Your task to perform on an android device: open sync settings in chrome Image 0: 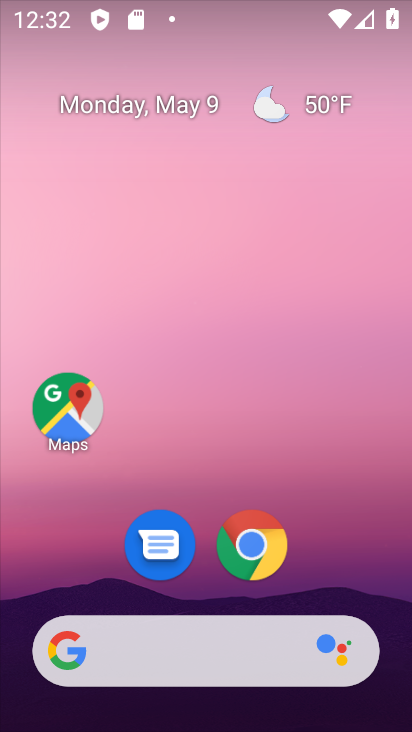
Step 0: click (240, 566)
Your task to perform on an android device: open sync settings in chrome Image 1: 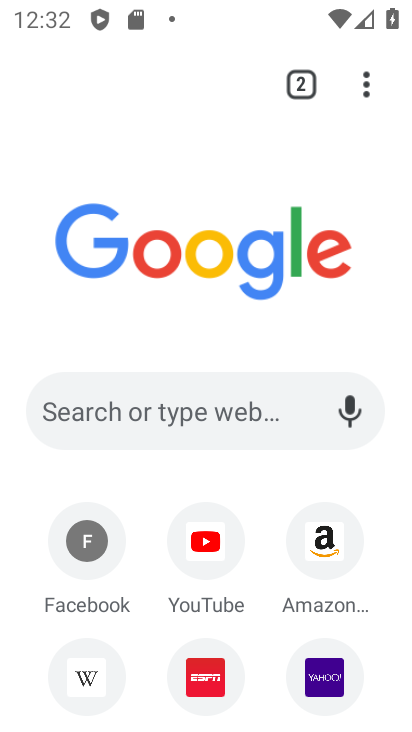
Step 1: click (370, 89)
Your task to perform on an android device: open sync settings in chrome Image 2: 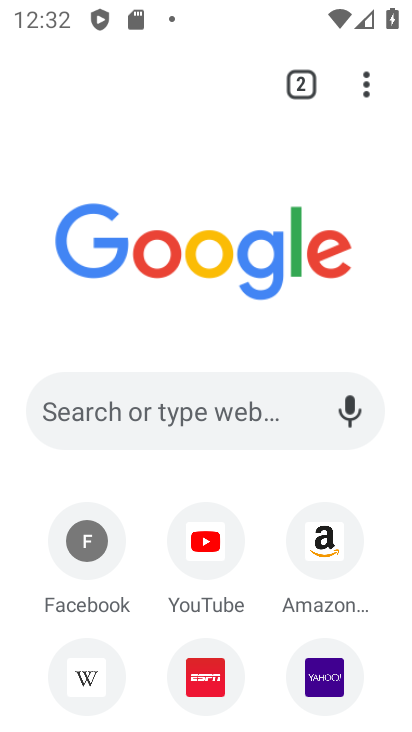
Step 2: drag from (362, 77) to (80, 589)
Your task to perform on an android device: open sync settings in chrome Image 3: 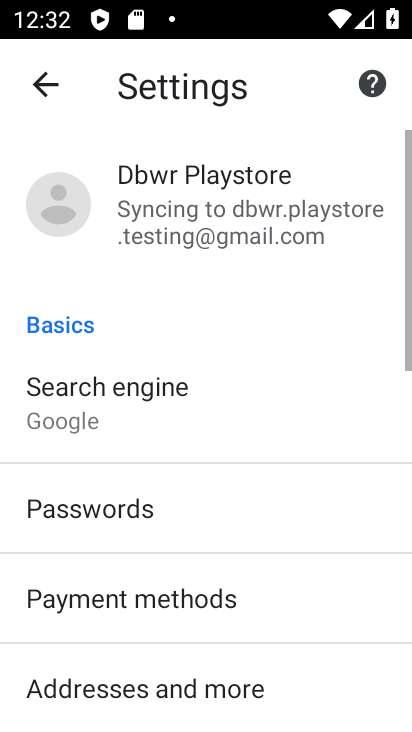
Step 3: click (143, 174)
Your task to perform on an android device: open sync settings in chrome Image 4: 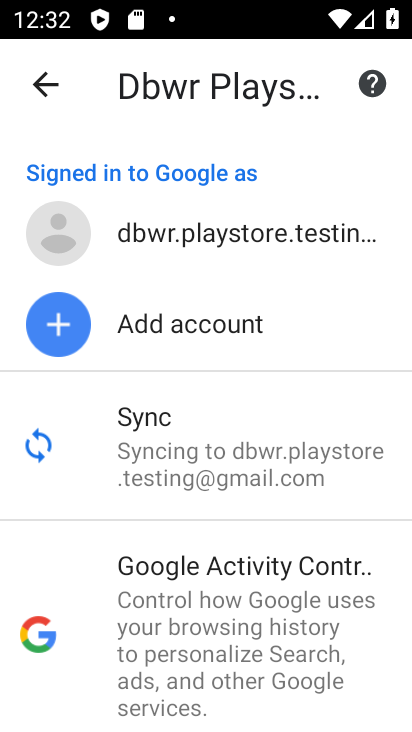
Step 4: click (171, 465)
Your task to perform on an android device: open sync settings in chrome Image 5: 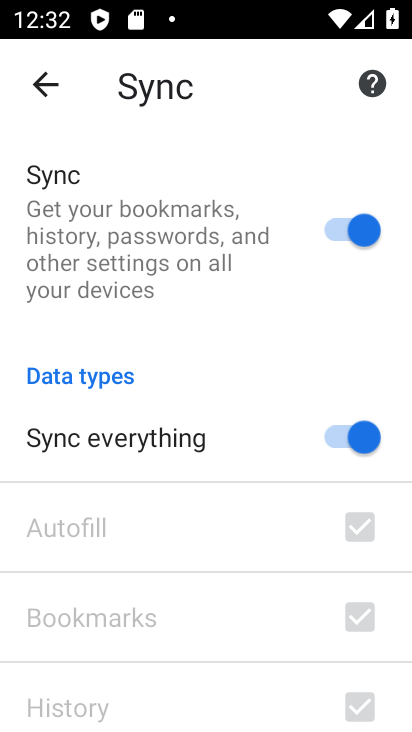
Step 5: task complete